Your task to perform on an android device: Set the phone to "Do not disturb". Image 0: 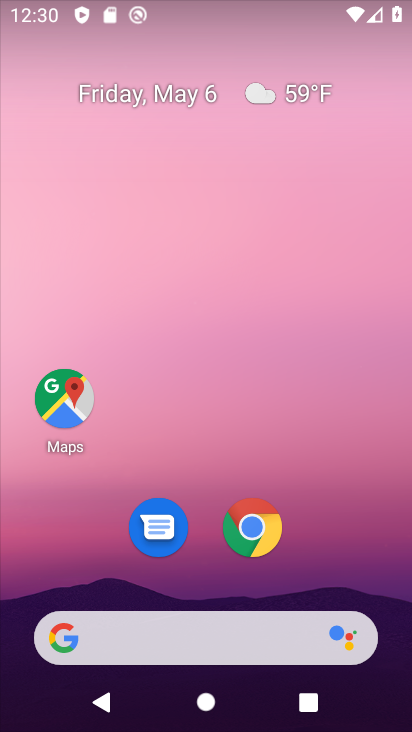
Step 0: drag from (319, 524) to (235, 29)
Your task to perform on an android device: Set the phone to "Do not disturb". Image 1: 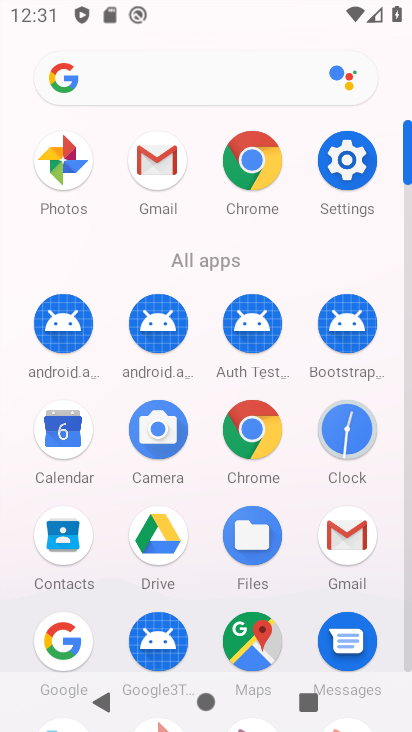
Step 1: click (347, 159)
Your task to perform on an android device: Set the phone to "Do not disturb". Image 2: 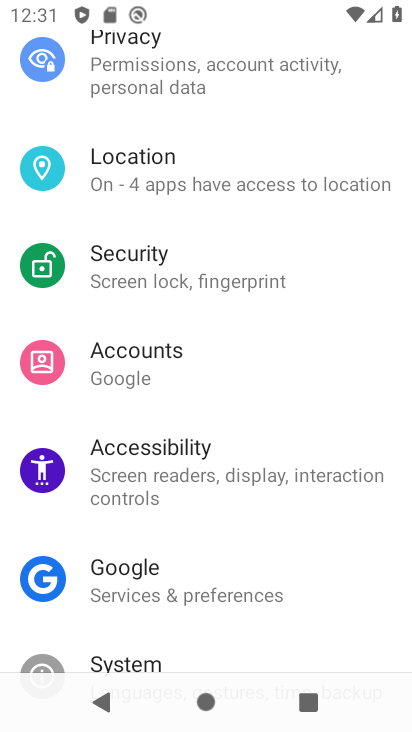
Step 2: drag from (244, 344) to (299, 450)
Your task to perform on an android device: Set the phone to "Do not disturb". Image 3: 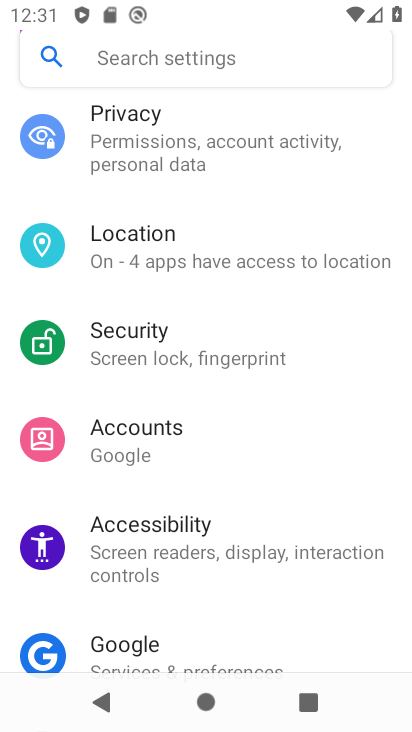
Step 3: drag from (219, 209) to (280, 360)
Your task to perform on an android device: Set the phone to "Do not disturb". Image 4: 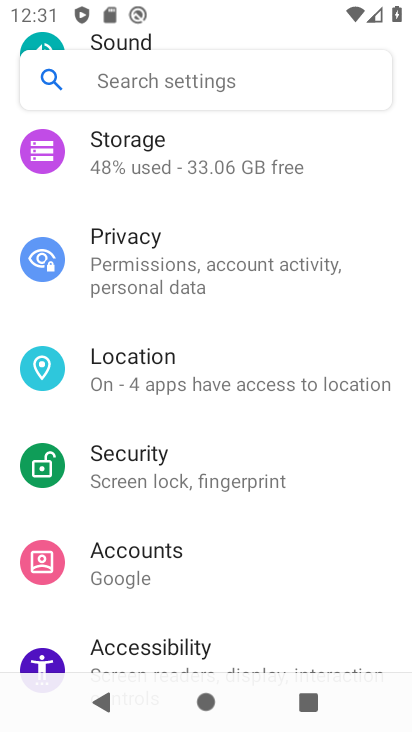
Step 4: drag from (232, 242) to (245, 405)
Your task to perform on an android device: Set the phone to "Do not disturb". Image 5: 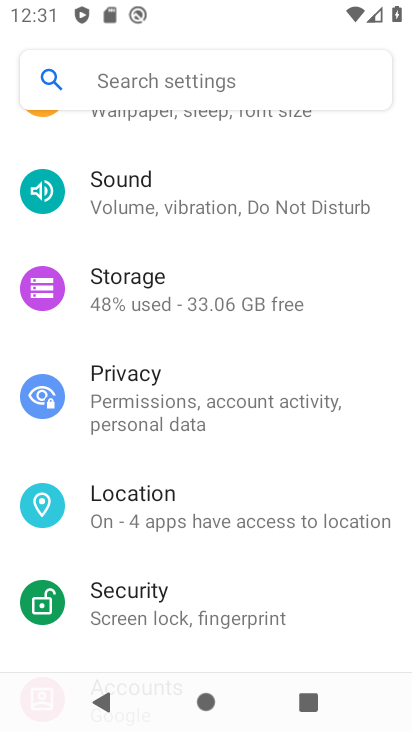
Step 5: click (193, 205)
Your task to perform on an android device: Set the phone to "Do not disturb". Image 6: 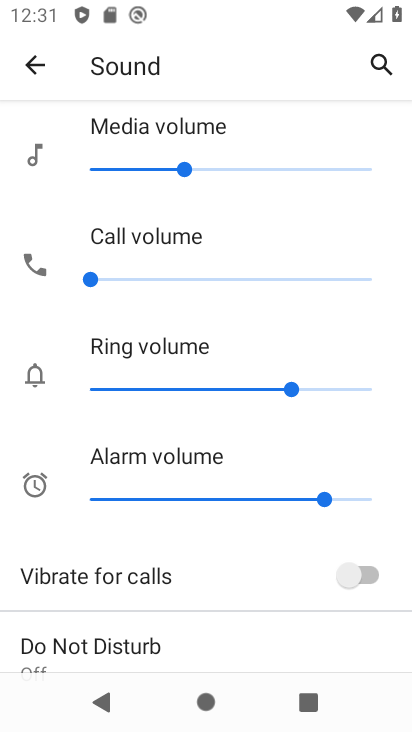
Step 6: drag from (204, 573) to (220, 419)
Your task to perform on an android device: Set the phone to "Do not disturb". Image 7: 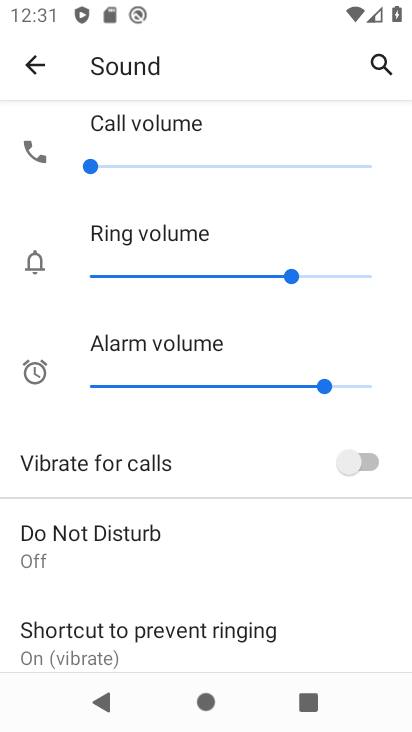
Step 7: click (106, 548)
Your task to perform on an android device: Set the phone to "Do not disturb". Image 8: 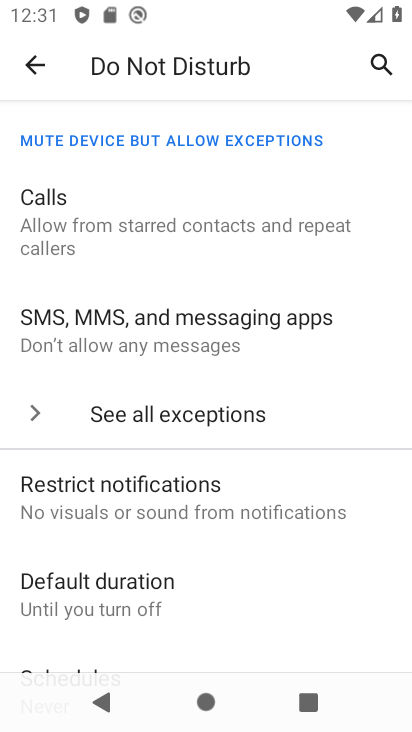
Step 8: drag from (137, 611) to (167, 422)
Your task to perform on an android device: Set the phone to "Do not disturb". Image 9: 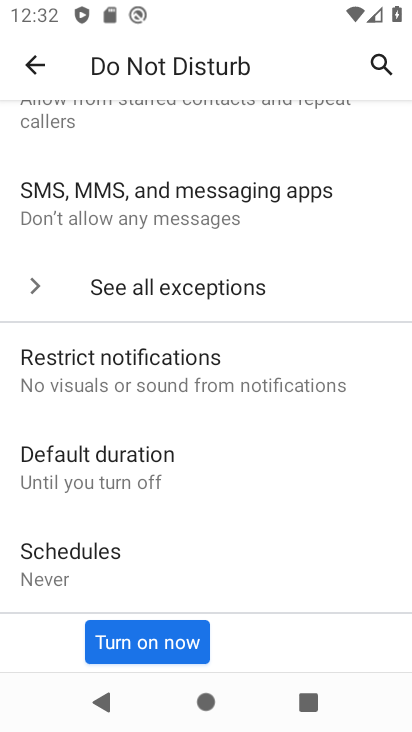
Step 9: click (164, 642)
Your task to perform on an android device: Set the phone to "Do not disturb". Image 10: 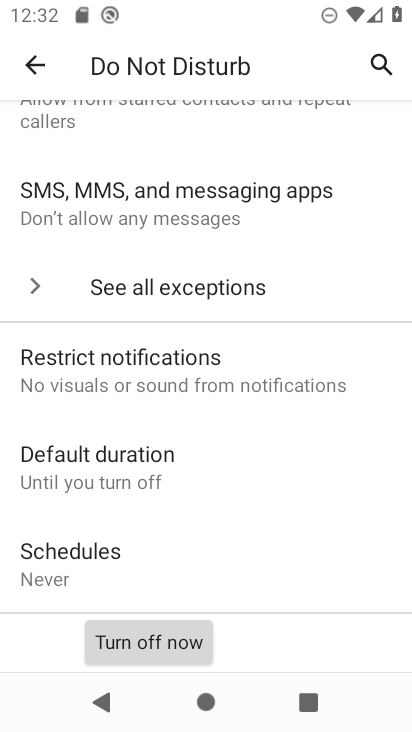
Step 10: task complete